Your task to perform on an android device: Search for sushi restaurants on Maps Image 0: 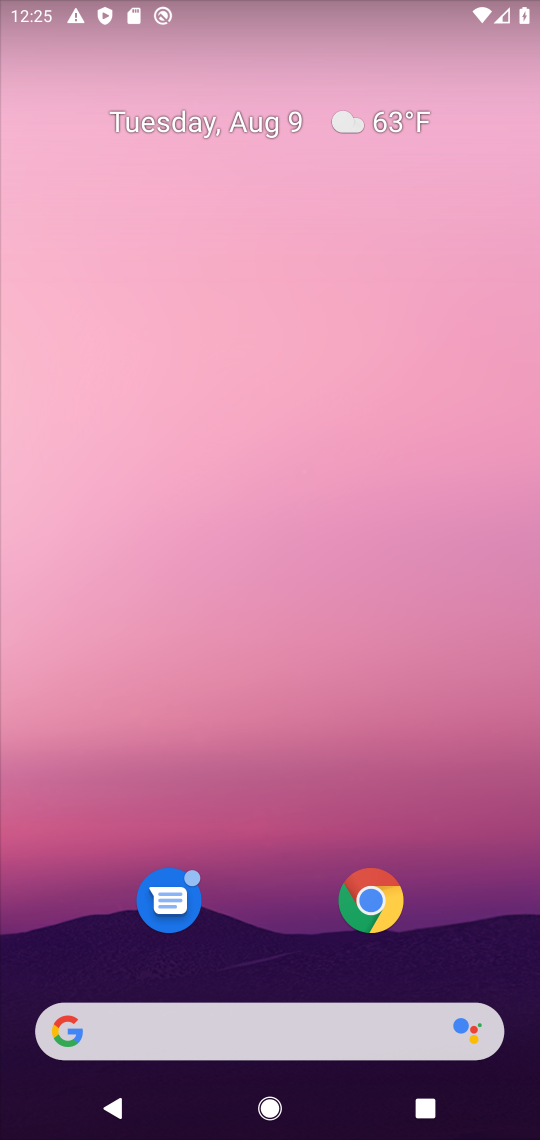
Step 0: drag from (257, 920) to (352, 88)
Your task to perform on an android device: Search for sushi restaurants on Maps Image 1: 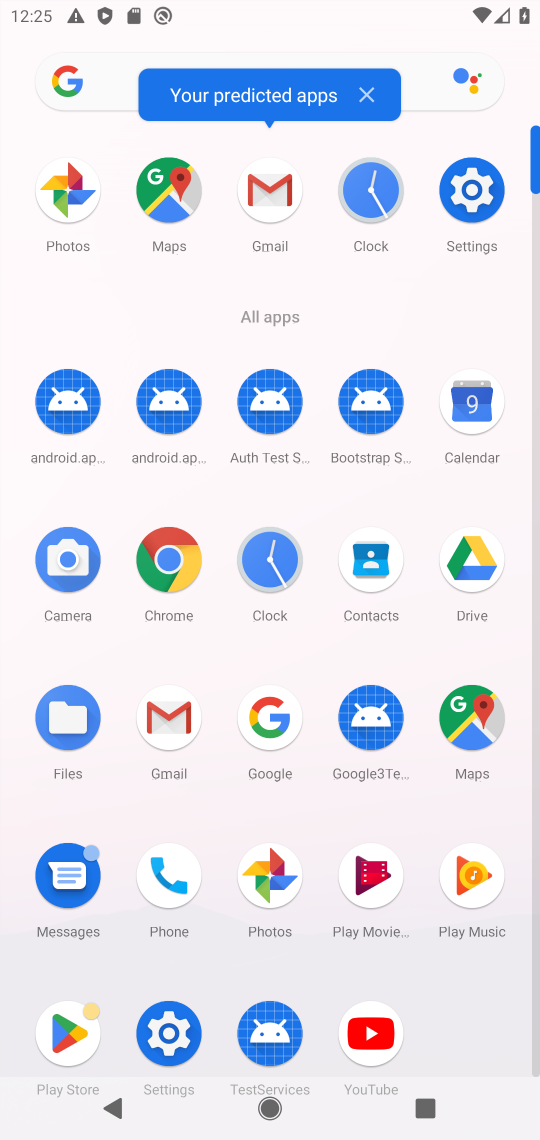
Step 1: click (476, 722)
Your task to perform on an android device: Search for sushi restaurants on Maps Image 2: 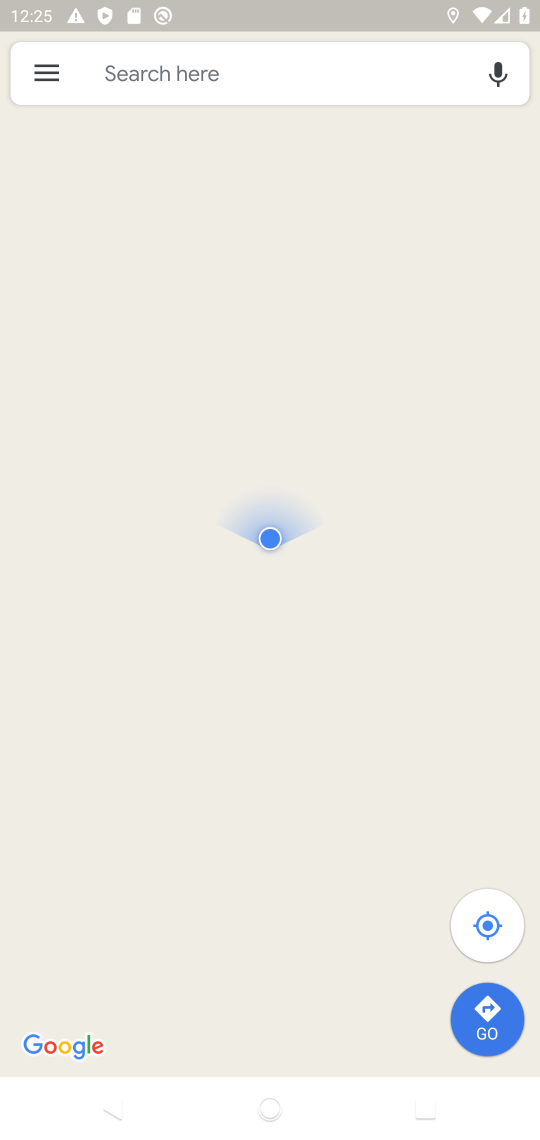
Step 2: click (278, 65)
Your task to perform on an android device: Search for sushi restaurants on Maps Image 3: 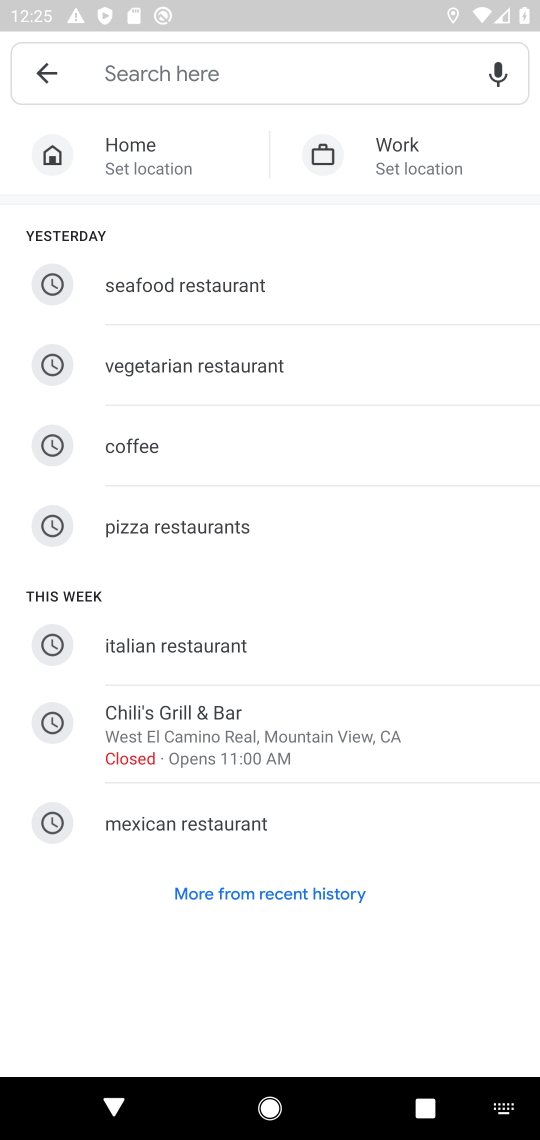
Step 3: type "sushi restaurants"
Your task to perform on an android device: Search for sushi restaurants on Maps Image 4: 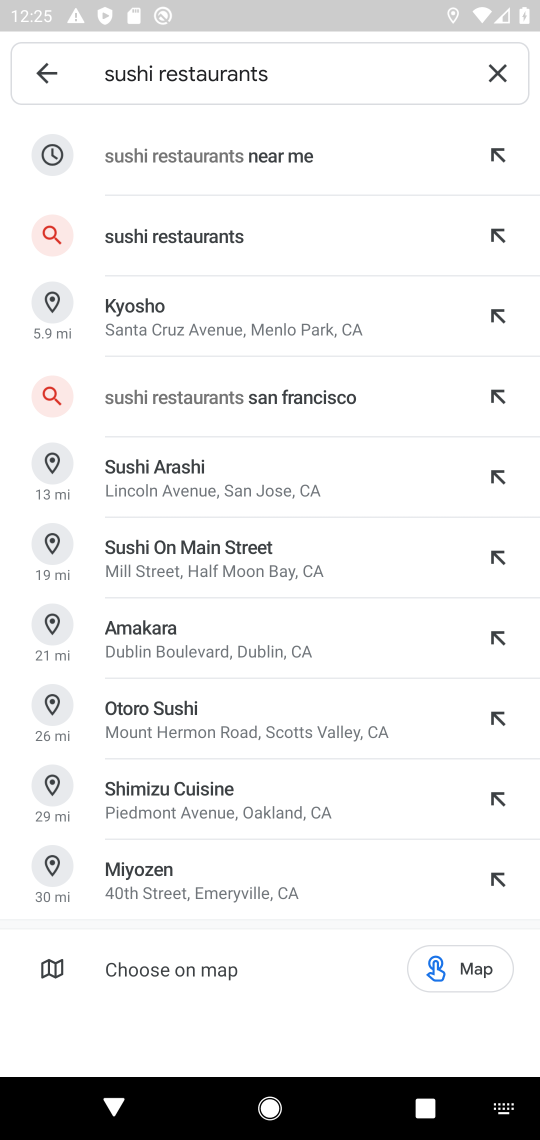
Step 4: click (237, 234)
Your task to perform on an android device: Search for sushi restaurants on Maps Image 5: 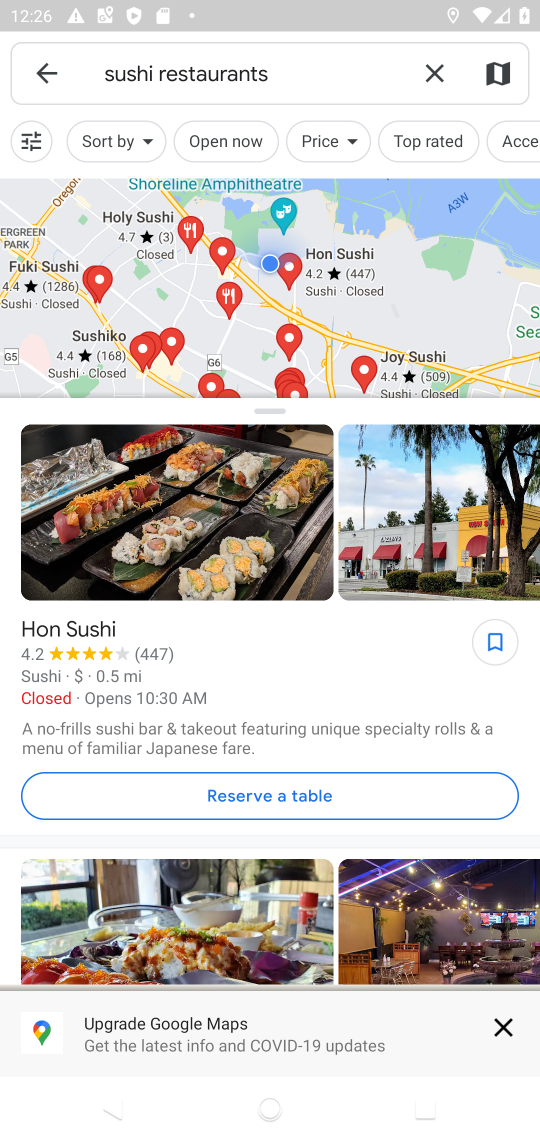
Step 5: task complete